Your task to perform on an android device: Open Yahoo.com Image 0: 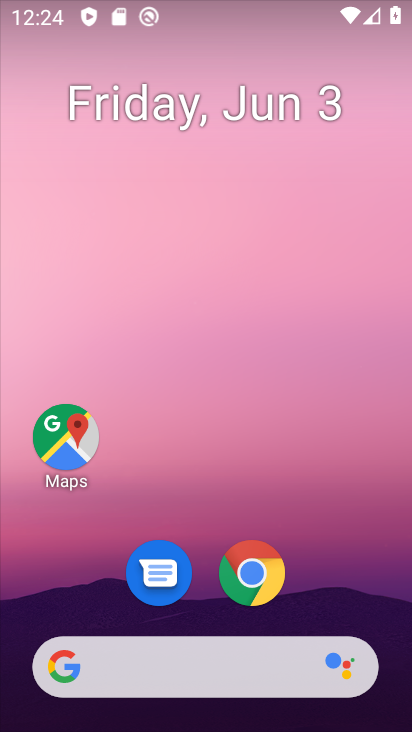
Step 0: task complete